Your task to perform on an android device: Open Google Chrome Image 0: 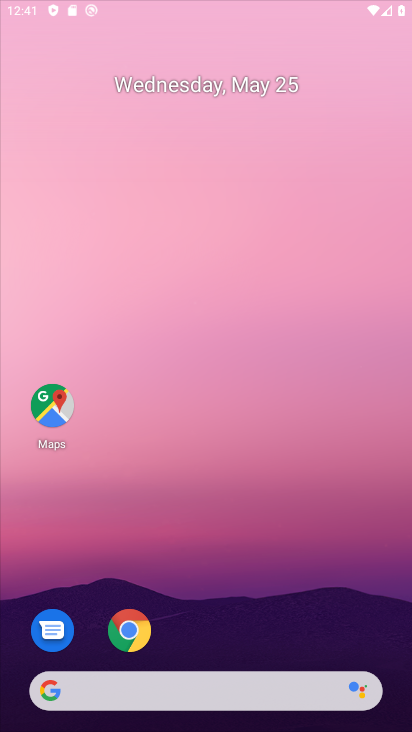
Step 0: press back button
Your task to perform on an android device: Open Google Chrome Image 1: 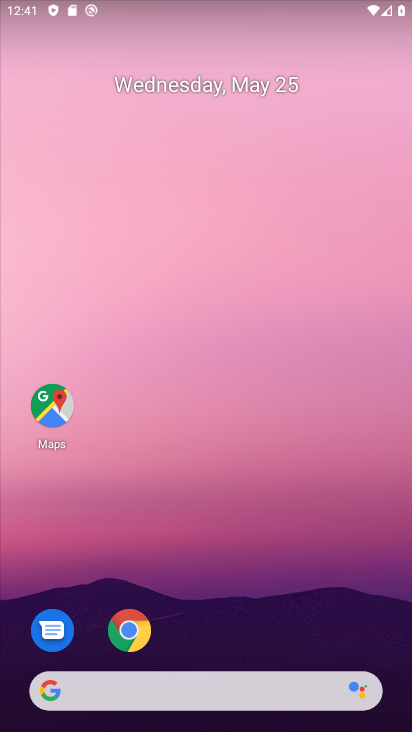
Step 1: drag from (278, 583) to (73, 54)
Your task to perform on an android device: Open Google Chrome Image 2: 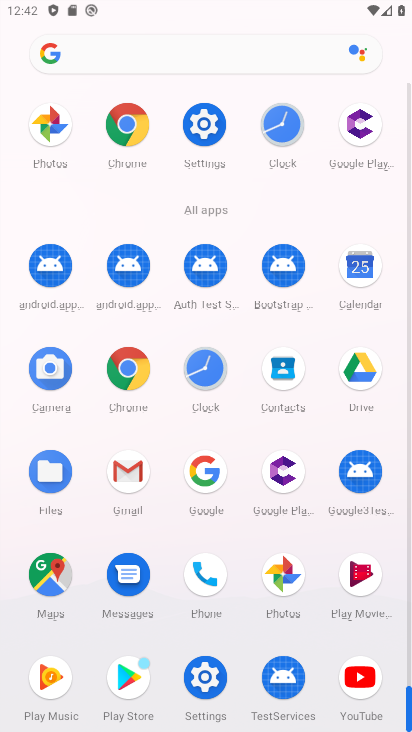
Step 2: click (124, 135)
Your task to perform on an android device: Open Google Chrome Image 3: 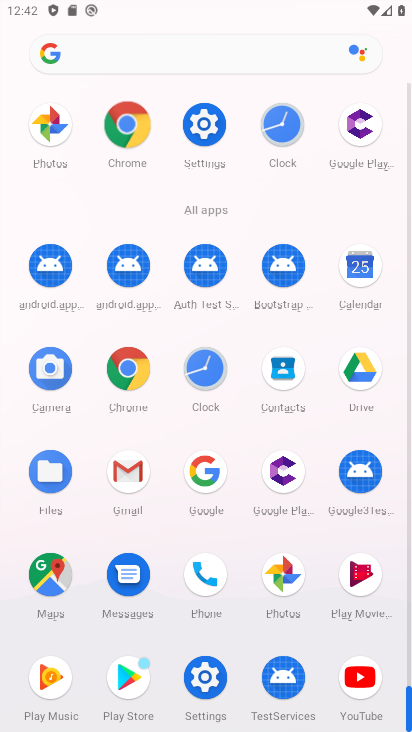
Step 3: click (124, 134)
Your task to perform on an android device: Open Google Chrome Image 4: 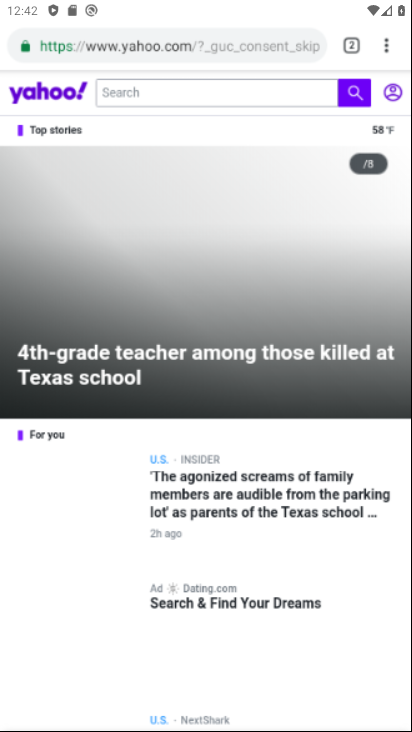
Step 4: click (125, 131)
Your task to perform on an android device: Open Google Chrome Image 5: 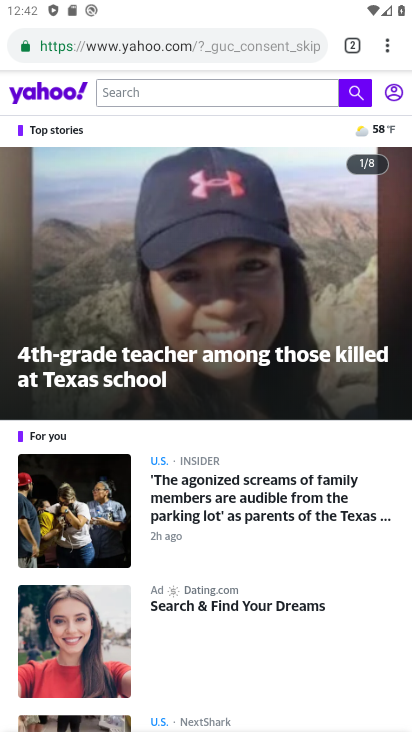
Step 5: drag from (386, 43) to (354, 245)
Your task to perform on an android device: Open Google Chrome Image 6: 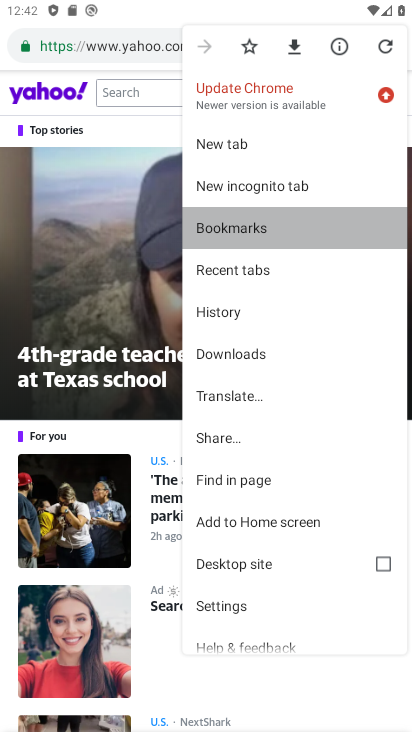
Step 6: press back button
Your task to perform on an android device: Open Google Chrome Image 7: 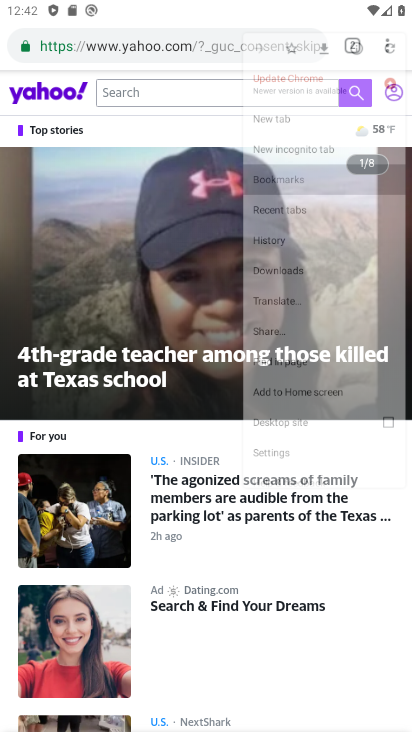
Step 7: drag from (354, 245) to (405, 130)
Your task to perform on an android device: Open Google Chrome Image 8: 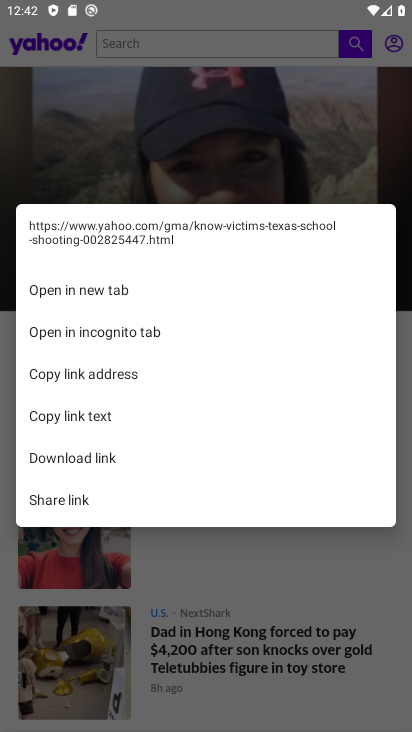
Step 8: press home button
Your task to perform on an android device: Open Google Chrome Image 9: 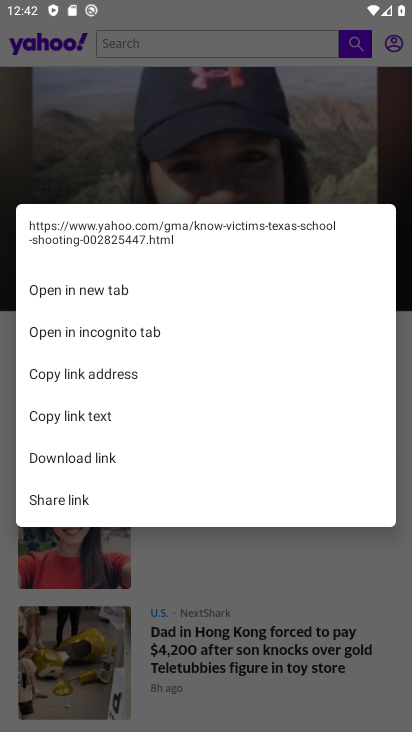
Step 9: press home button
Your task to perform on an android device: Open Google Chrome Image 10: 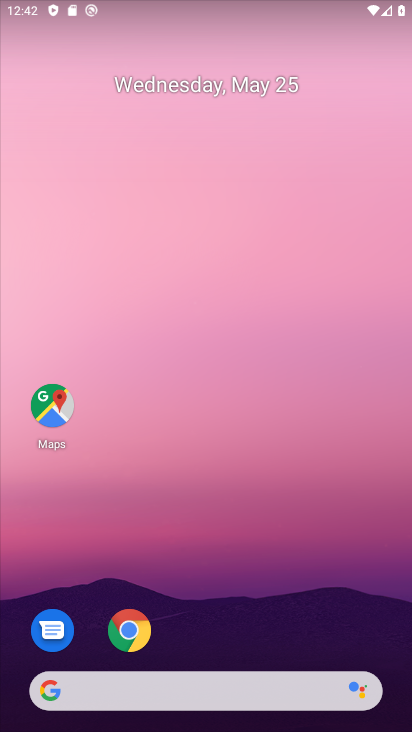
Step 10: drag from (236, 669) to (160, 203)
Your task to perform on an android device: Open Google Chrome Image 11: 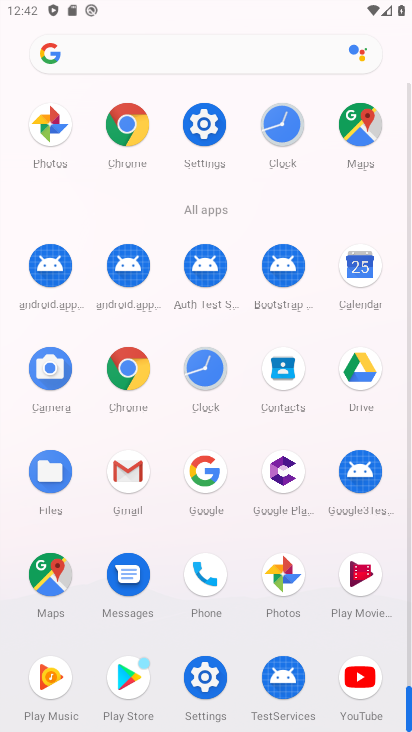
Step 11: click (115, 129)
Your task to perform on an android device: Open Google Chrome Image 12: 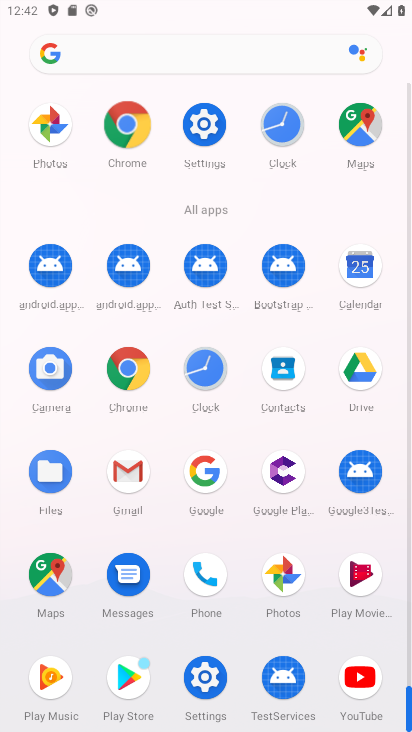
Step 12: click (115, 129)
Your task to perform on an android device: Open Google Chrome Image 13: 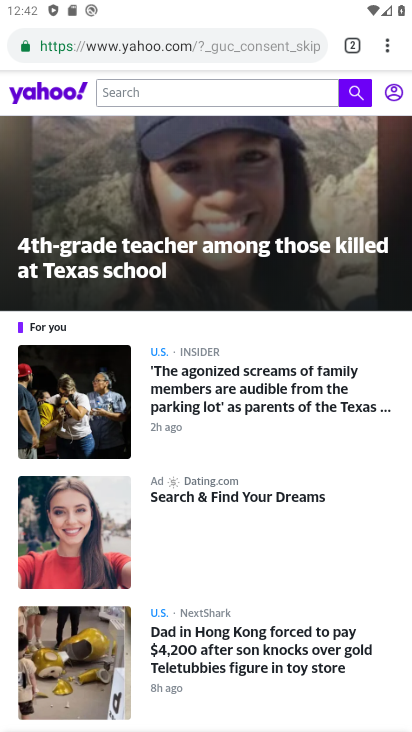
Step 13: drag from (382, 42) to (218, 147)
Your task to perform on an android device: Open Google Chrome Image 14: 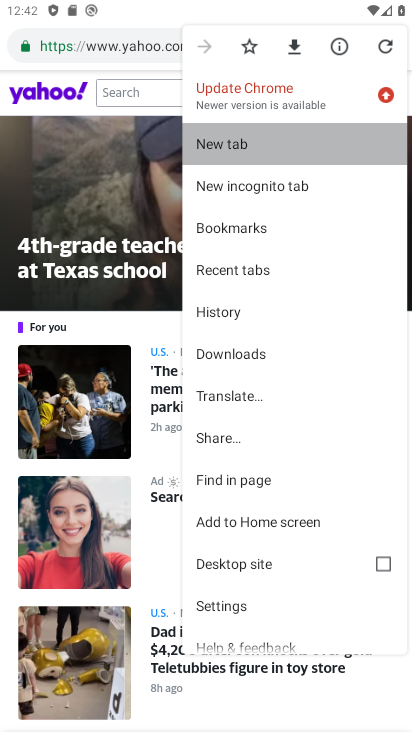
Step 14: click (224, 143)
Your task to perform on an android device: Open Google Chrome Image 15: 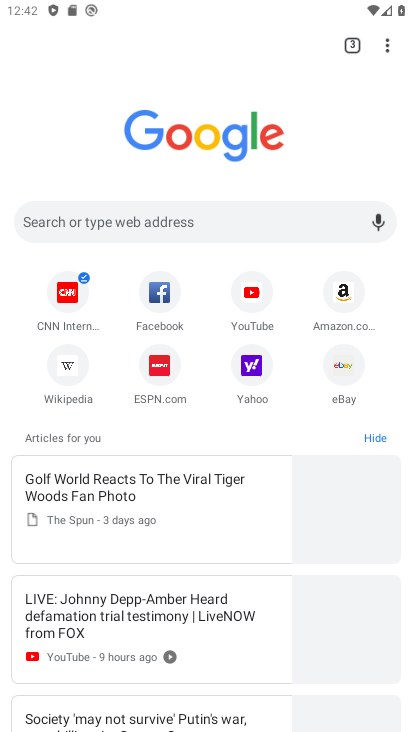
Step 15: click (226, 142)
Your task to perform on an android device: Open Google Chrome Image 16: 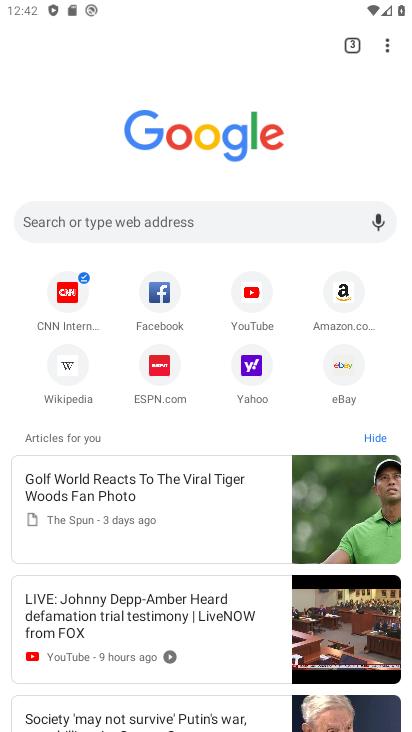
Step 16: task complete